Your task to perform on an android device: Go to battery settings Image 0: 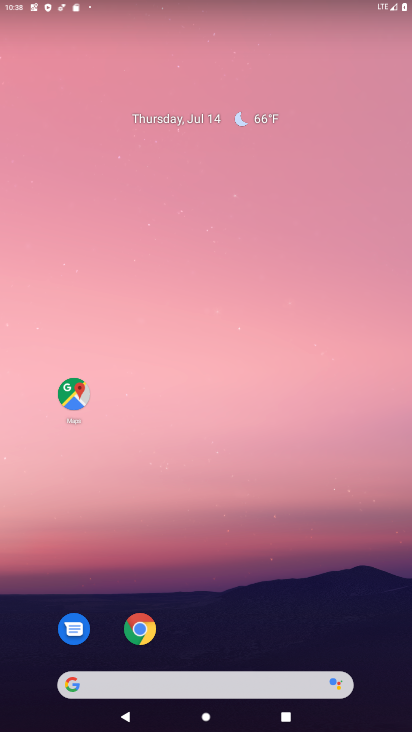
Step 0: press home button
Your task to perform on an android device: Go to battery settings Image 1: 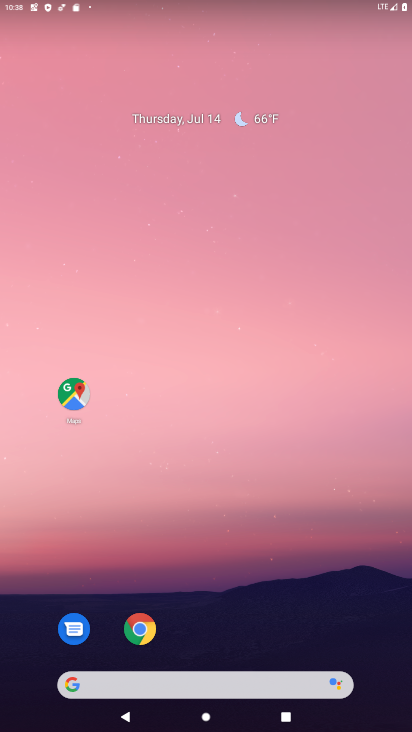
Step 1: drag from (252, 566) to (258, 0)
Your task to perform on an android device: Go to battery settings Image 2: 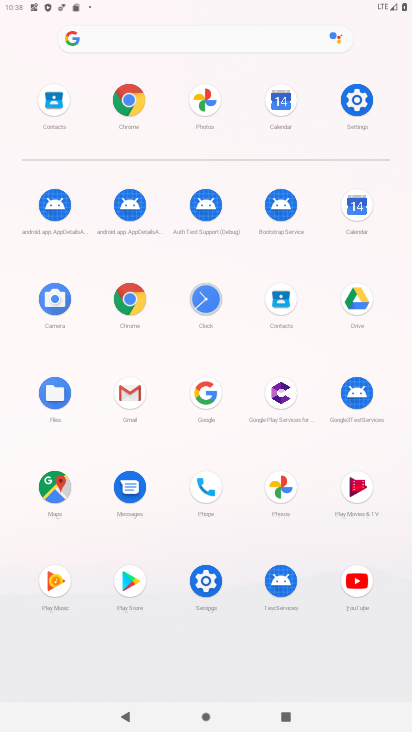
Step 2: click (364, 103)
Your task to perform on an android device: Go to battery settings Image 3: 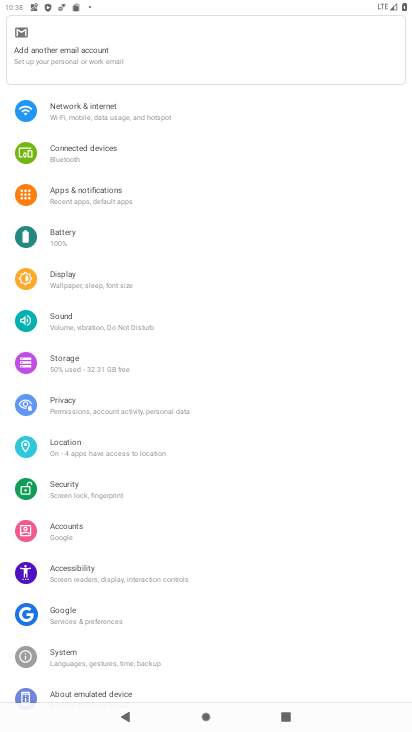
Step 3: click (71, 244)
Your task to perform on an android device: Go to battery settings Image 4: 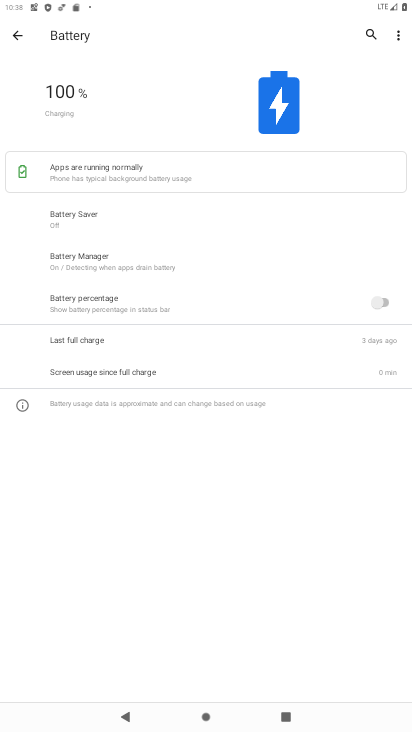
Step 4: task complete